Your task to perform on an android device: Search for seafood restaurants on Google Maps Image 0: 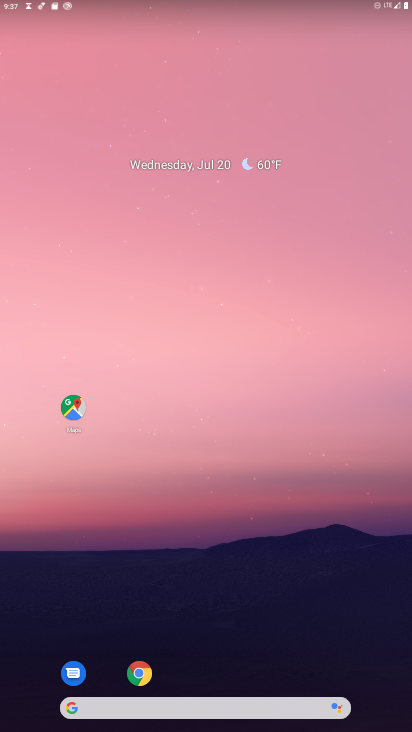
Step 0: click (69, 415)
Your task to perform on an android device: Search for seafood restaurants on Google Maps Image 1: 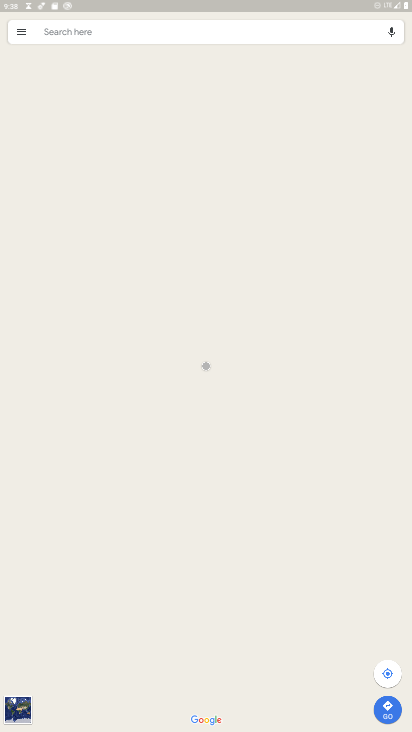
Step 1: click (193, 38)
Your task to perform on an android device: Search for seafood restaurants on Google Maps Image 2: 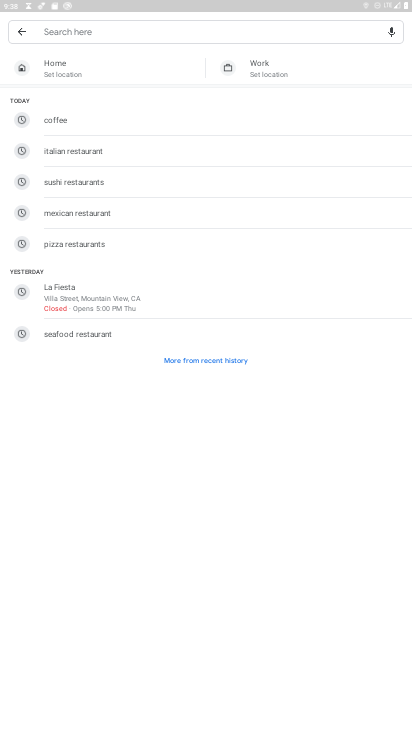
Step 2: click (154, 35)
Your task to perform on an android device: Search for seafood restaurants on Google Maps Image 3: 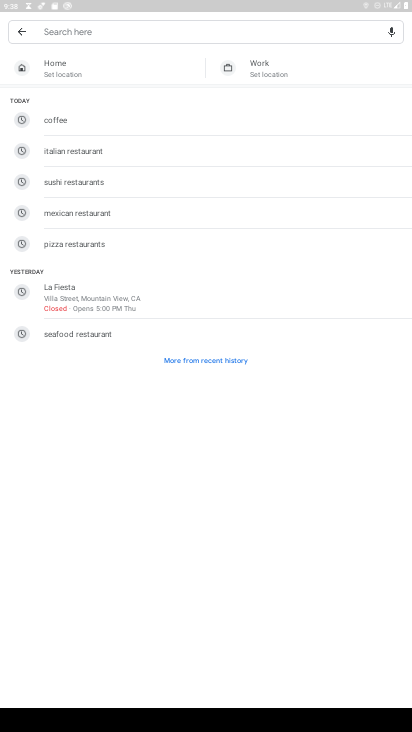
Step 3: click (60, 336)
Your task to perform on an android device: Search for seafood restaurants on Google Maps Image 4: 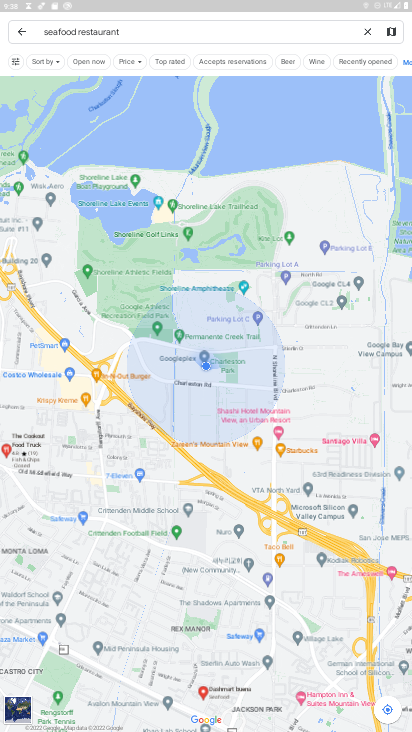
Step 4: task complete